Your task to perform on an android device: Is it going to rain this weekend? Image 0: 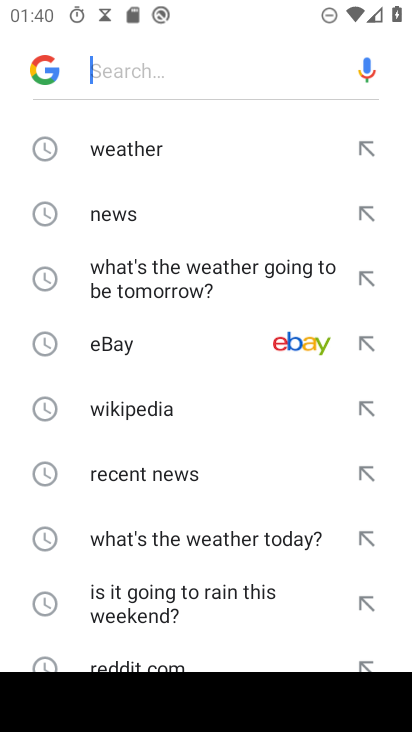
Step 0: type "is it going to rain this weekend"
Your task to perform on an android device: Is it going to rain this weekend? Image 1: 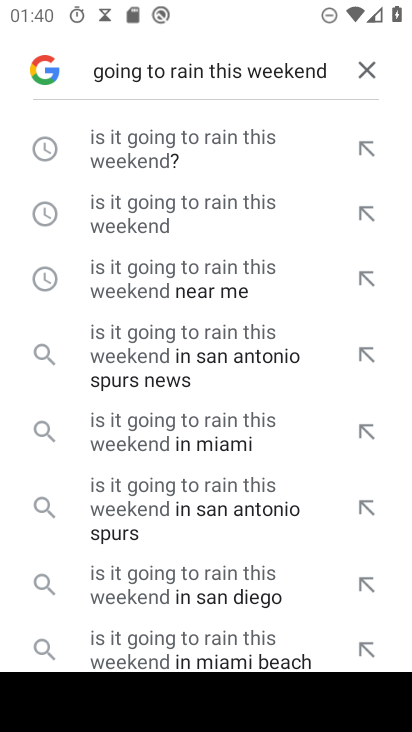
Step 1: click (220, 152)
Your task to perform on an android device: Is it going to rain this weekend? Image 2: 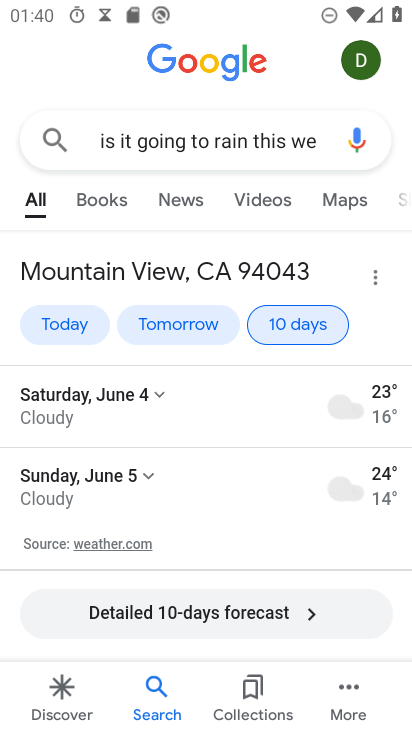
Step 2: task complete